Your task to perform on an android device: change the clock display to show seconds Image 0: 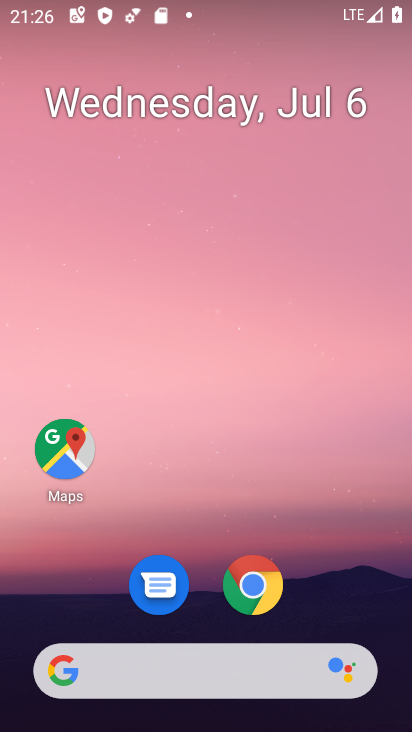
Step 0: drag from (224, 500) to (262, 84)
Your task to perform on an android device: change the clock display to show seconds Image 1: 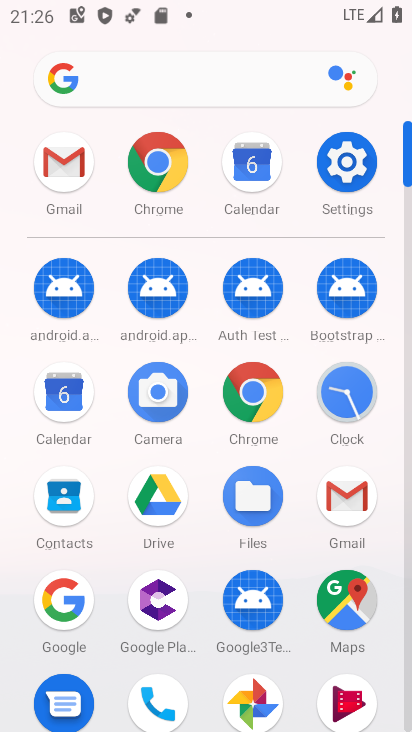
Step 1: click (340, 390)
Your task to perform on an android device: change the clock display to show seconds Image 2: 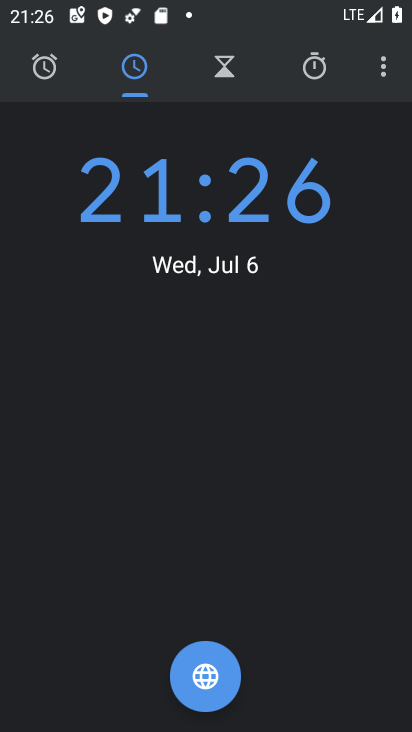
Step 2: click (384, 71)
Your task to perform on an android device: change the clock display to show seconds Image 3: 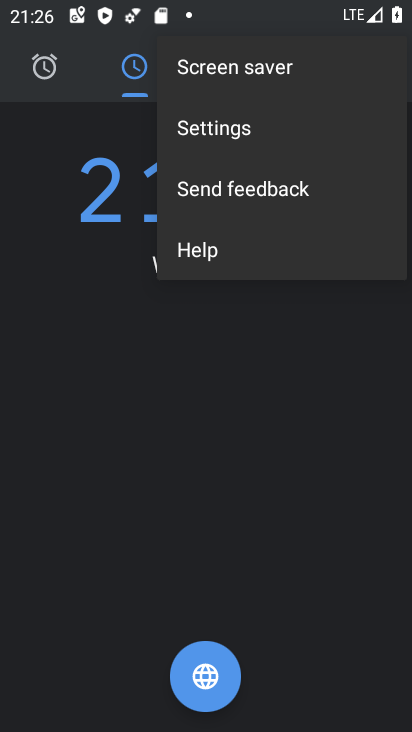
Step 3: click (264, 128)
Your task to perform on an android device: change the clock display to show seconds Image 4: 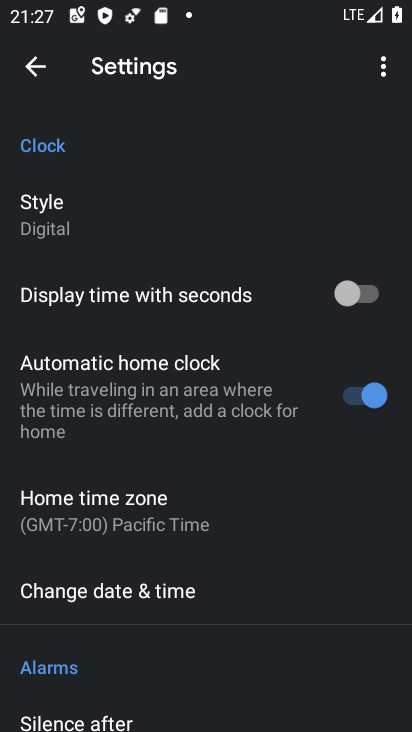
Step 4: click (368, 288)
Your task to perform on an android device: change the clock display to show seconds Image 5: 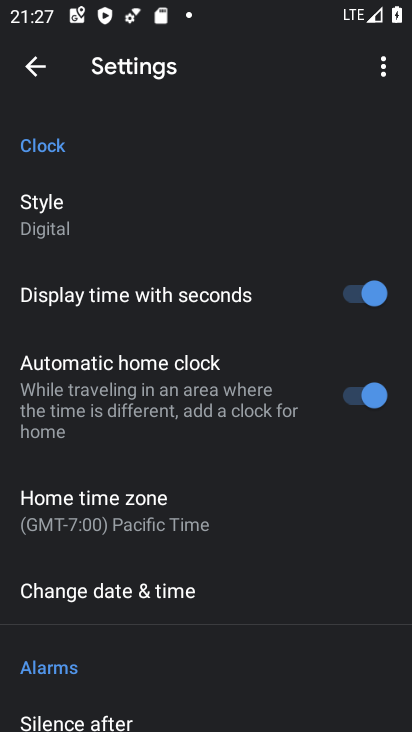
Step 5: click (37, 67)
Your task to perform on an android device: change the clock display to show seconds Image 6: 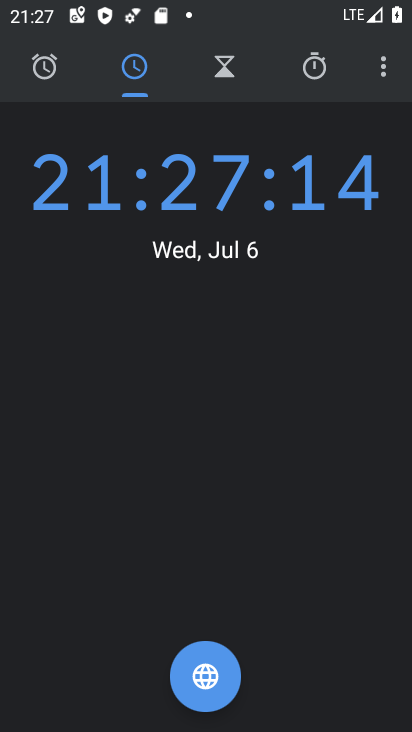
Step 6: task complete